Your task to perform on an android device: Open calendar and show me the first week of next month Image 0: 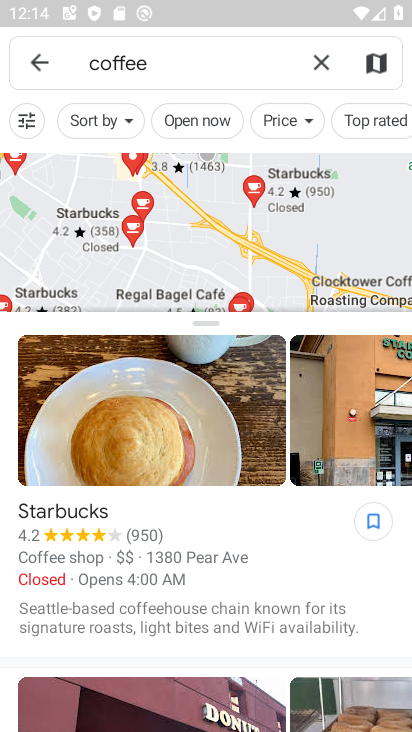
Step 0: press home button
Your task to perform on an android device: Open calendar and show me the first week of next month Image 1: 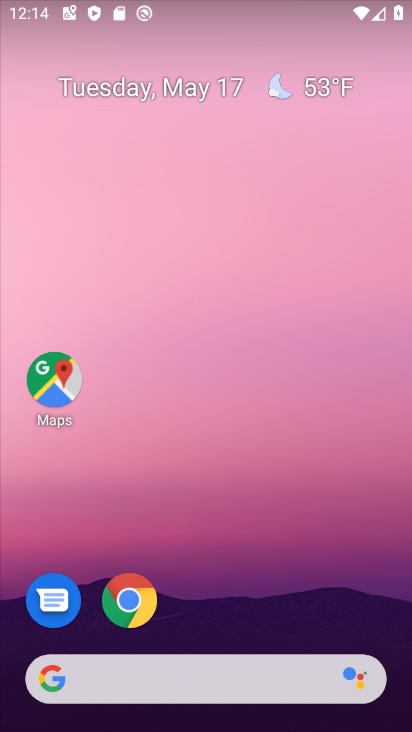
Step 1: drag from (257, 609) to (232, 194)
Your task to perform on an android device: Open calendar and show me the first week of next month Image 2: 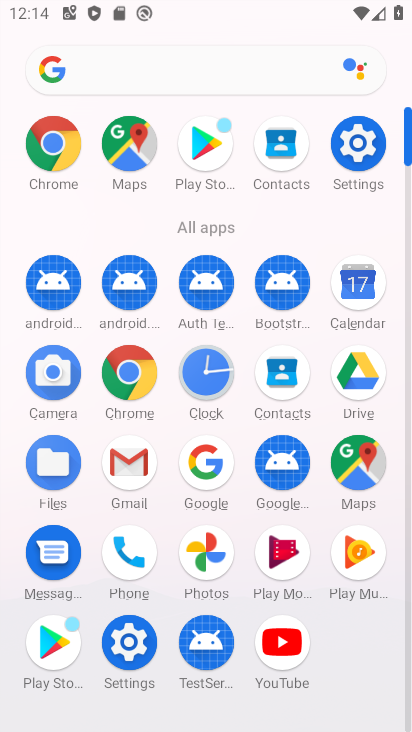
Step 2: click (345, 285)
Your task to perform on an android device: Open calendar and show me the first week of next month Image 3: 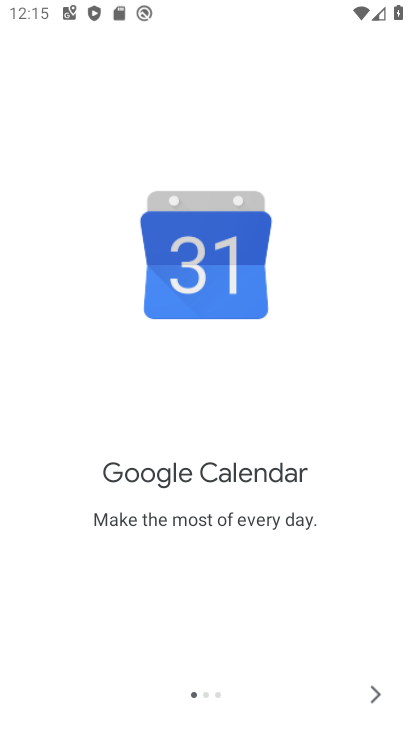
Step 3: click (373, 686)
Your task to perform on an android device: Open calendar and show me the first week of next month Image 4: 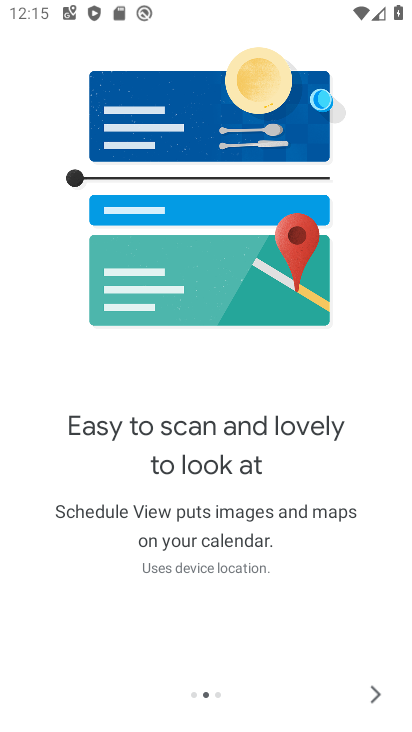
Step 4: click (373, 686)
Your task to perform on an android device: Open calendar and show me the first week of next month Image 5: 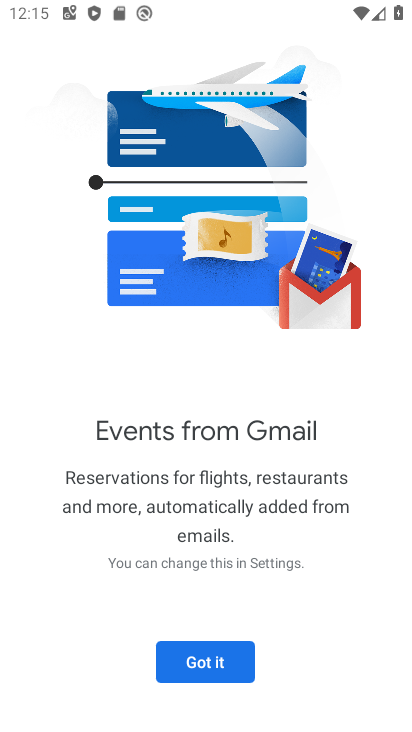
Step 5: click (206, 664)
Your task to perform on an android device: Open calendar and show me the first week of next month Image 6: 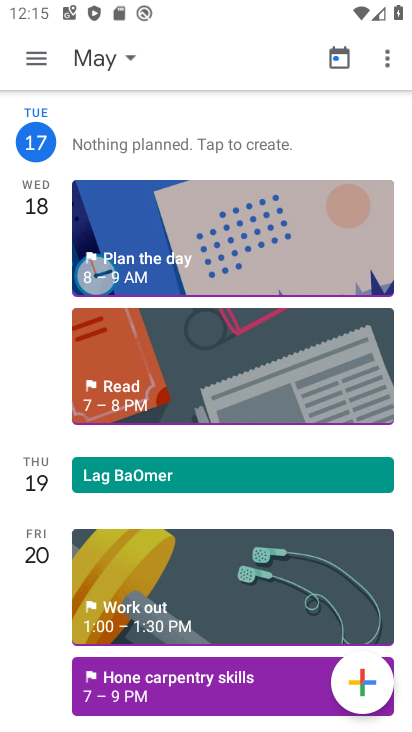
Step 6: click (33, 58)
Your task to perform on an android device: Open calendar and show me the first week of next month Image 7: 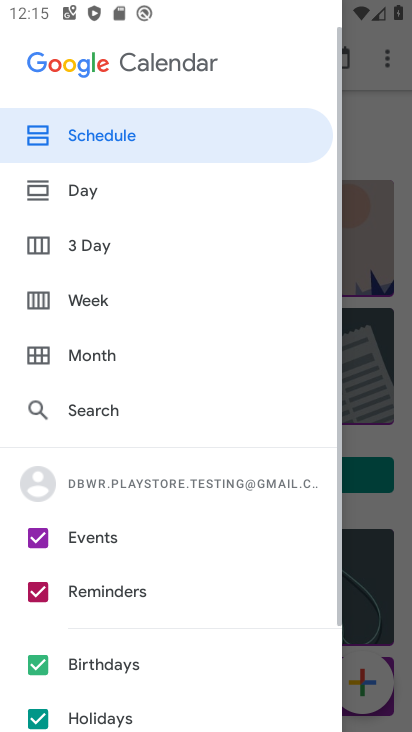
Step 7: click (137, 301)
Your task to perform on an android device: Open calendar and show me the first week of next month Image 8: 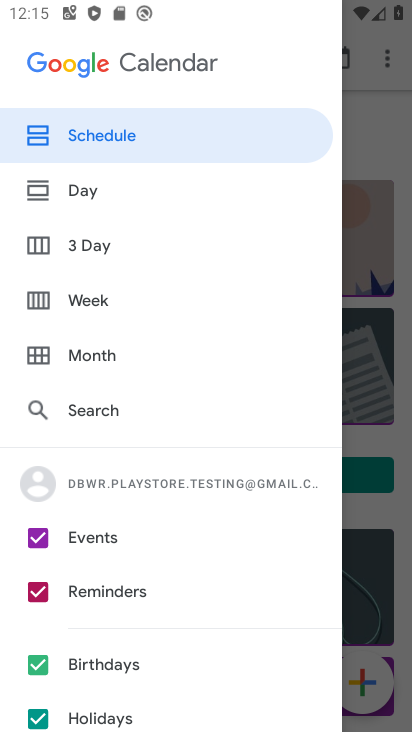
Step 8: click (137, 301)
Your task to perform on an android device: Open calendar and show me the first week of next month Image 9: 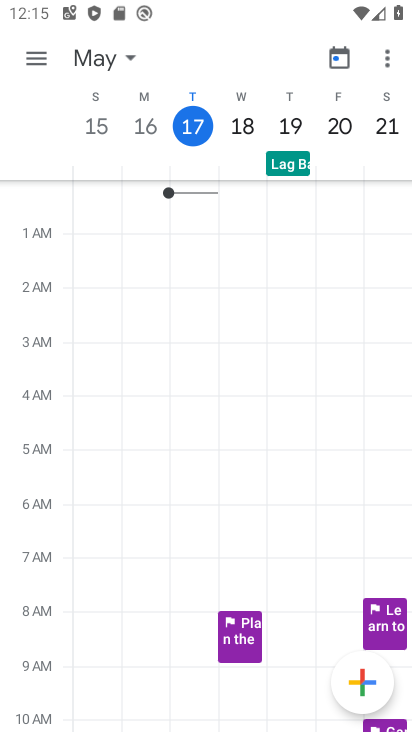
Step 9: click (124, 68)
Your task to perform on an android device: Open calendar and show me the first week of next month Image 10: 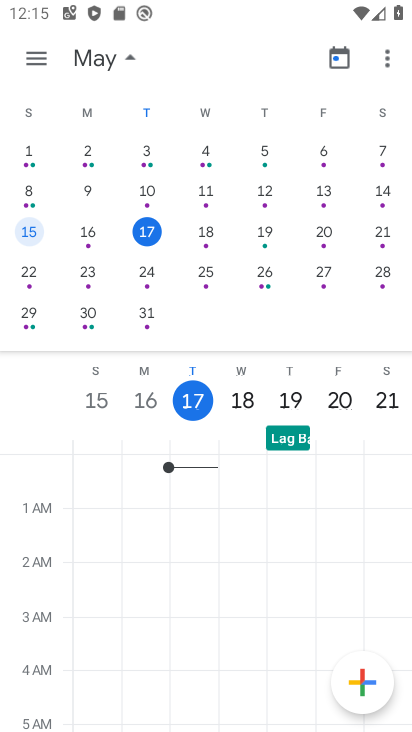
Step 10: drag from (365, 220) to (169, 217)
Your task to perform on an android device: Open calendar and show me the first week of next month Image 11: 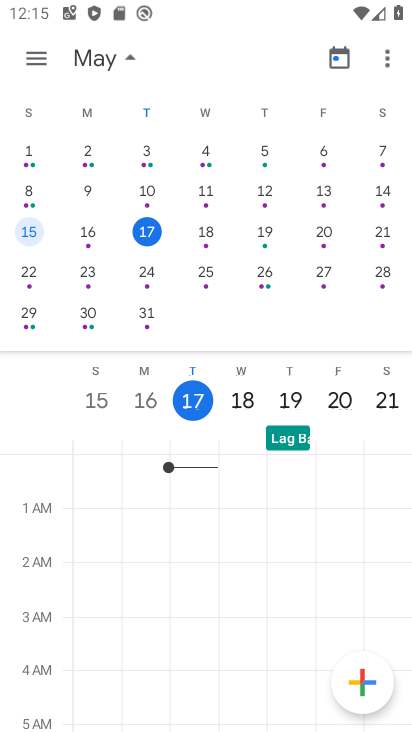
Step 11: drag from (393, 225) to (67, 239)
Your task to perform on an android device: Open calendar and show me the first week of next month Image 12: 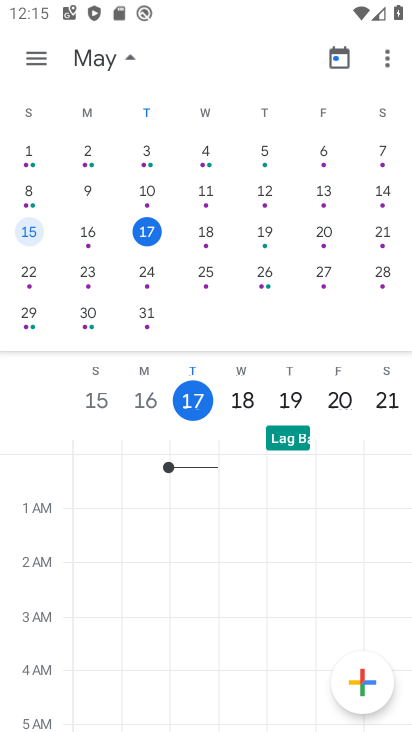
Step 12: drag from (365, 198) to (35, 207)
Your task to perform on an android device: Open calendar and show me the first week of next month Image 13: 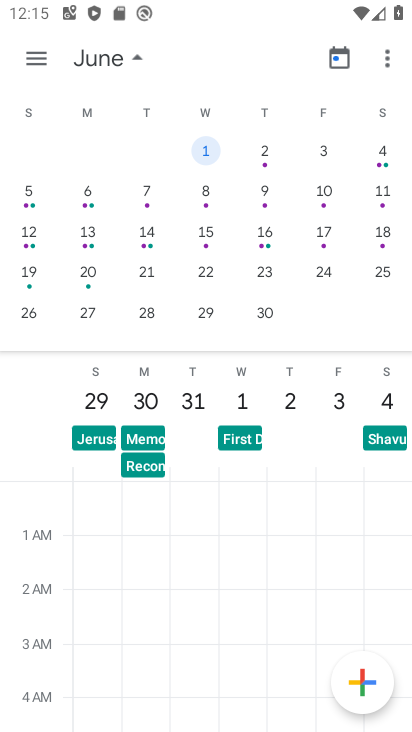
Step 13: click (155, 191)
Your task to perform on an android device: Open calendar and show me the first week of next month Image 14: 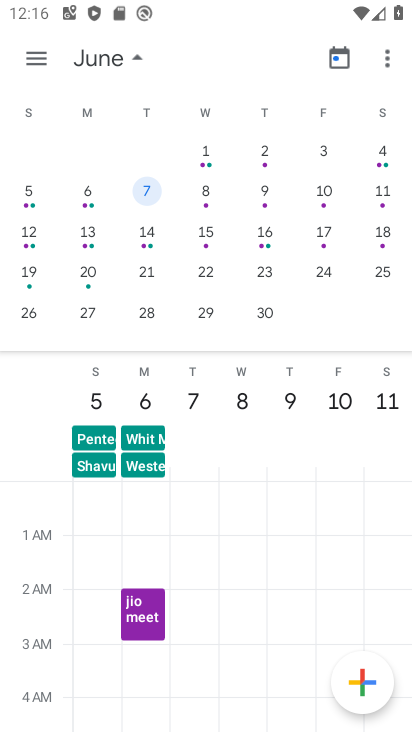
Step 14: task complete